Your task to perform on an android device: change the clock display to analog Image 0: 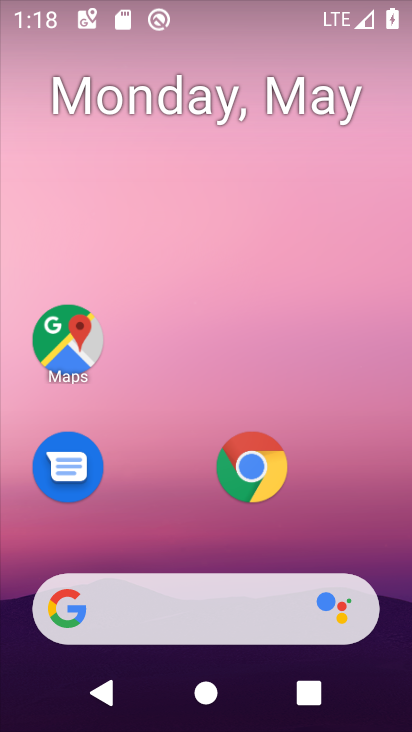
Step 0: drag from (157, 522) to (247, 66)
Your task to perform on an android device: change the clock display to analog Image 1: 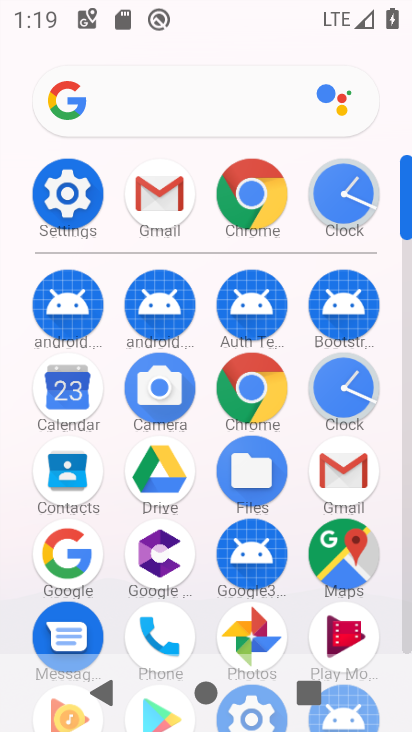
Step 1: click (67, 186)
Your task to perform on an android device: change the clock display to analog Image 2: 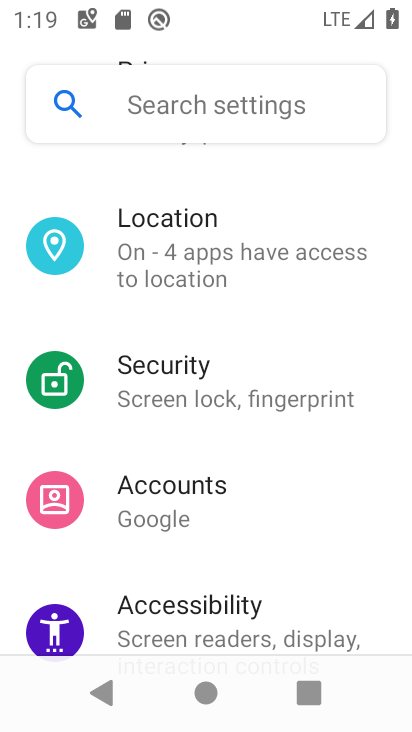
Step 2: drag from (221, 603) to (281, 313)
Your task to perform on an android device: change the clock display to analog Image 3: 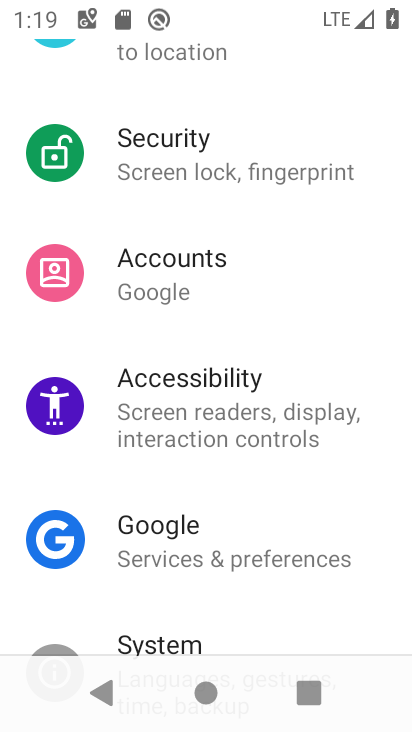
Step 3: press home button
Your task to perform on an android device: change the clock display to analog Image 4: 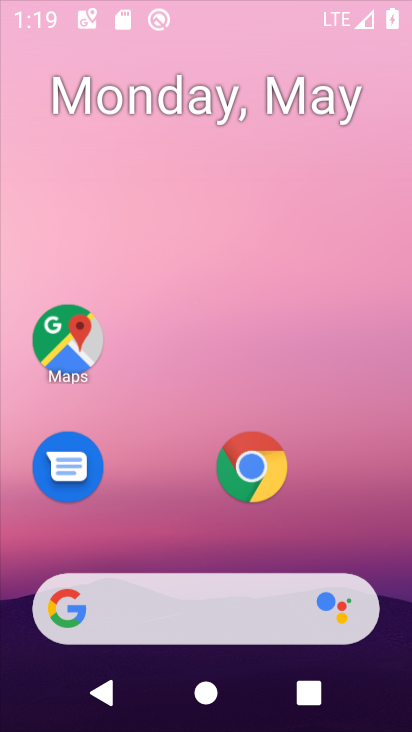
Step 4: drag from (211, 605) to (353, 114)
Your task to perform on an android device: change the clock display to analog Image 5: 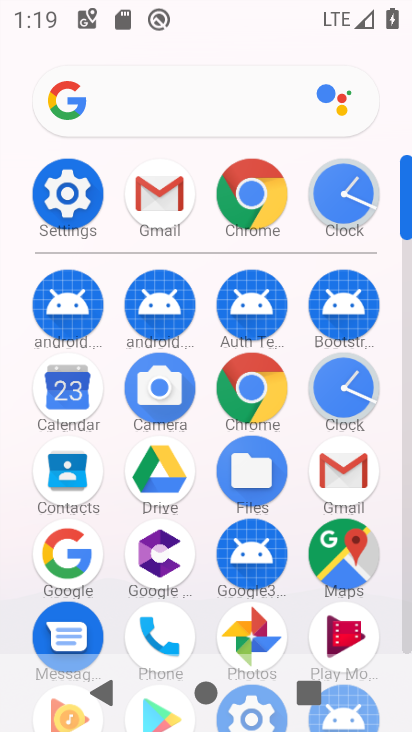
Step 5: click (349, 384)
Your task to perform on an android device: change the clock display to analog Image 6: 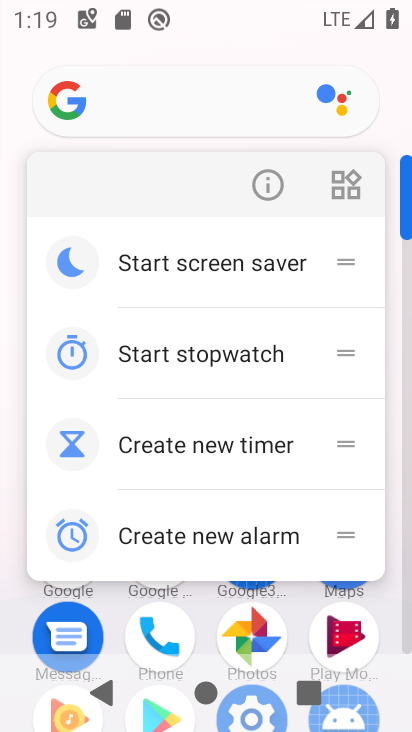
Step 6: click (268, 182)
Your task to perform on an android device: change the clock display to analog Image 7: 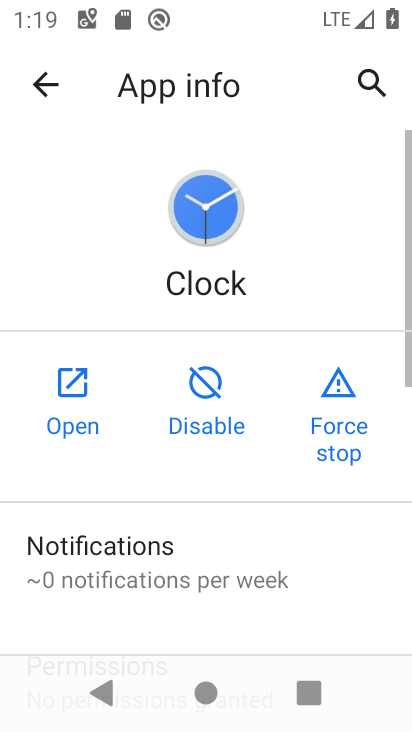
Step 7: click (53, 400)
Your task to perform on an android device: change the clock display to analog Image 8: 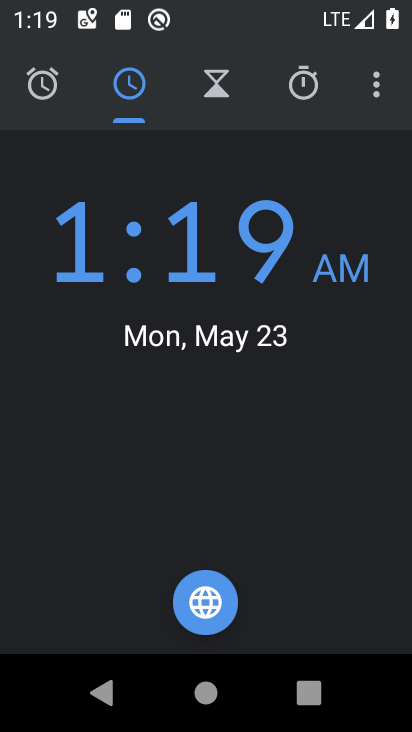
Step 8: click (373, 86)
Your task to perform on an android device: change the clock display to analog Image 9: 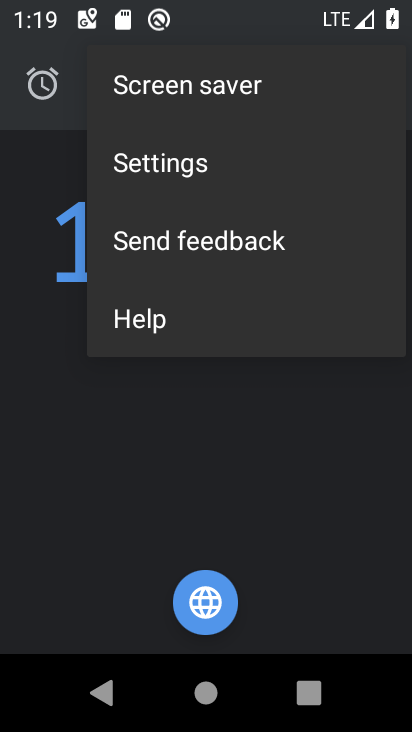
Step 9: click (187, 167)
Your task to perform on an android device: change the clock display to analog Image 10: 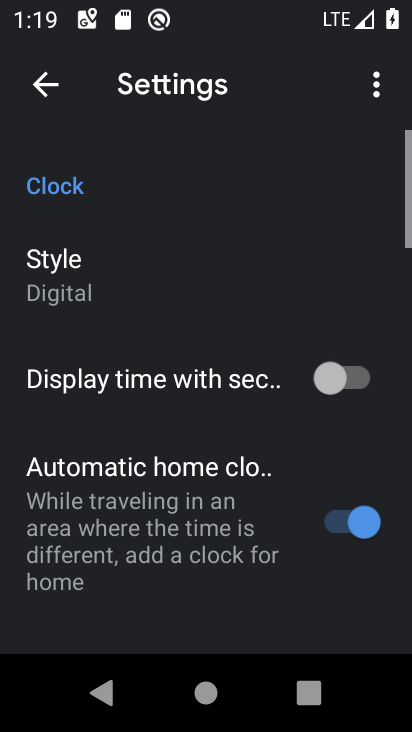
Step 10: click (94, 300)
Your task to perform on an android device: change the clock display to analog Image 11: 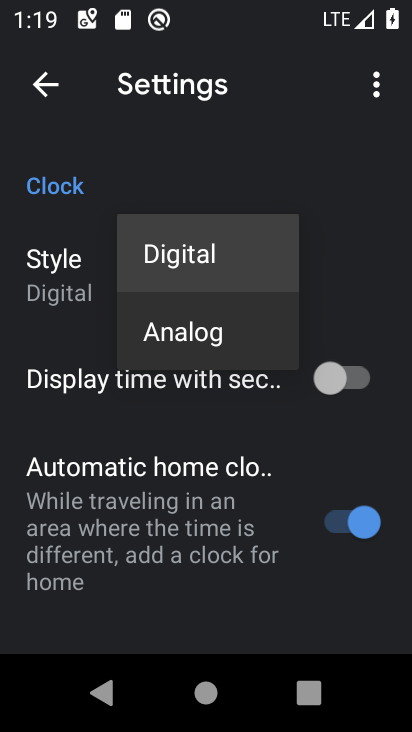
Step 11: click (201, 339)
Your task to perform on an android device: change the clock display to analog Image 12: 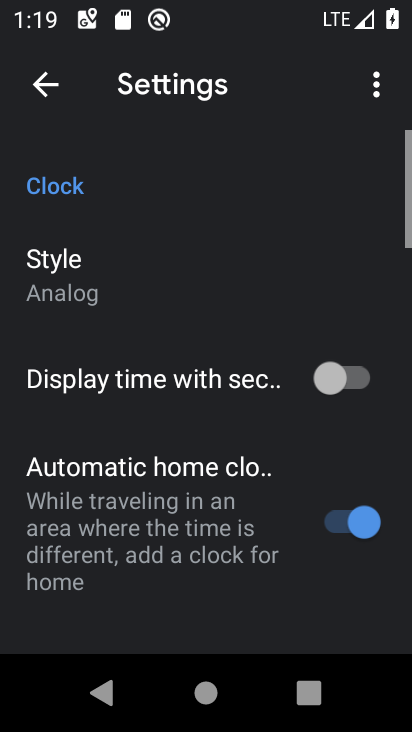
Step 12: task complete